Your task to perform on an android device: Open Chrome and go to settings Image 0: 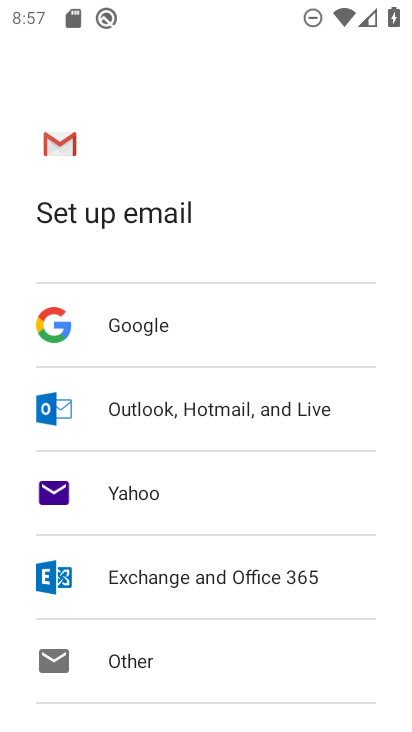
Step 0: press home button
Your task to perform on an android device: Open Chrome and go to settings Image 1: 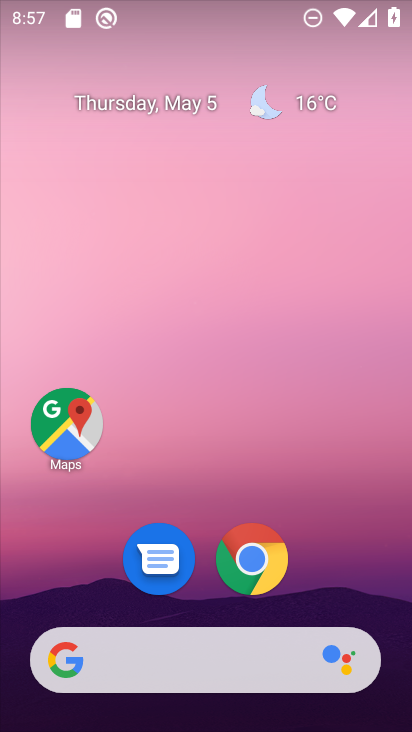
Step 1: click (259, 565)
Your task to perform on an android device: Open Chrome and go to settings Image 2: 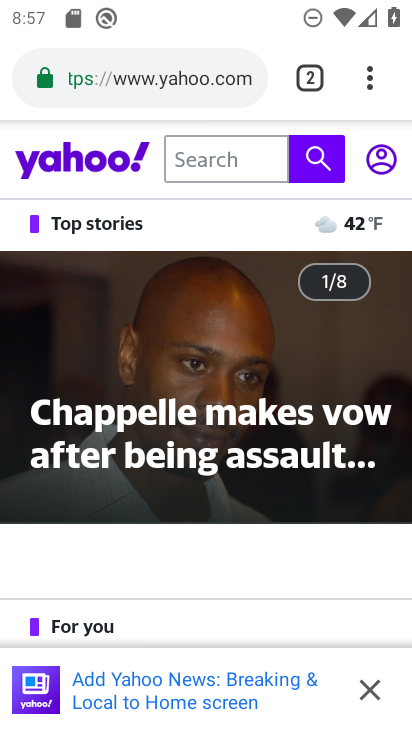
Step 2: click (369, 81)
Your task to perform on an android device: Open Chrome and go to settings Image 3: 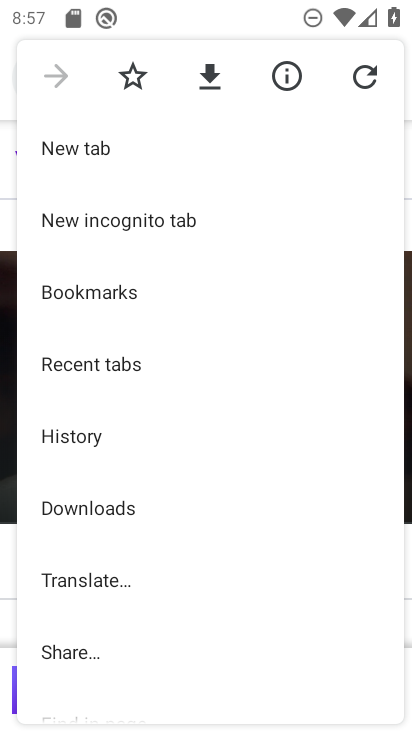
Step 3: drag from (257, 553) to (247, 117)
Your task to perform on an android device: Open Chrome and go to settings Image 4: 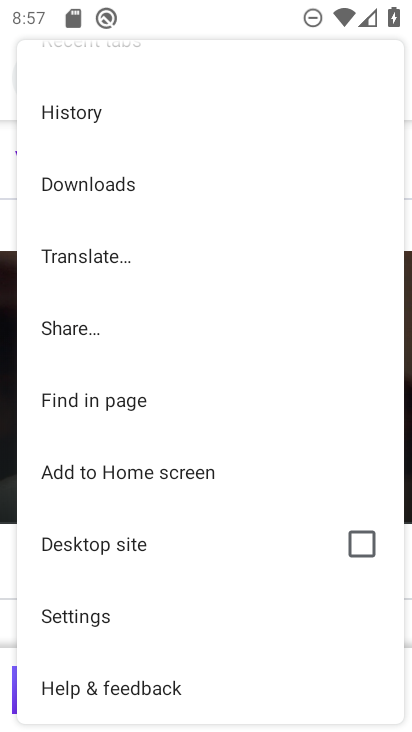
Step 4: click (69, 617)
Your task to perform on an android device: Open Chrome and go to settings Image 5: 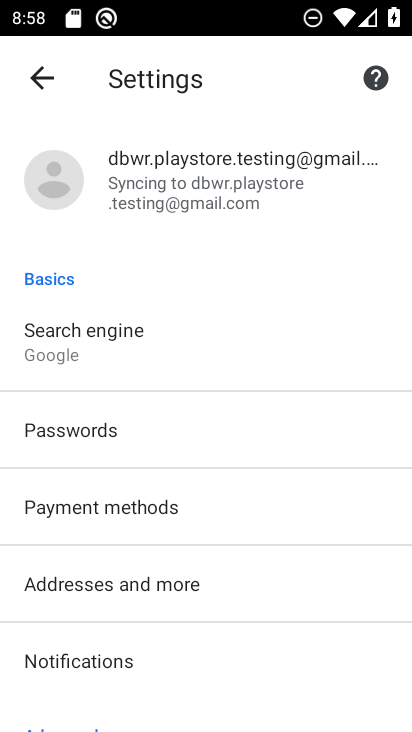
Step 5: task complete